Your task to perform on an android device: check storage Image 0: 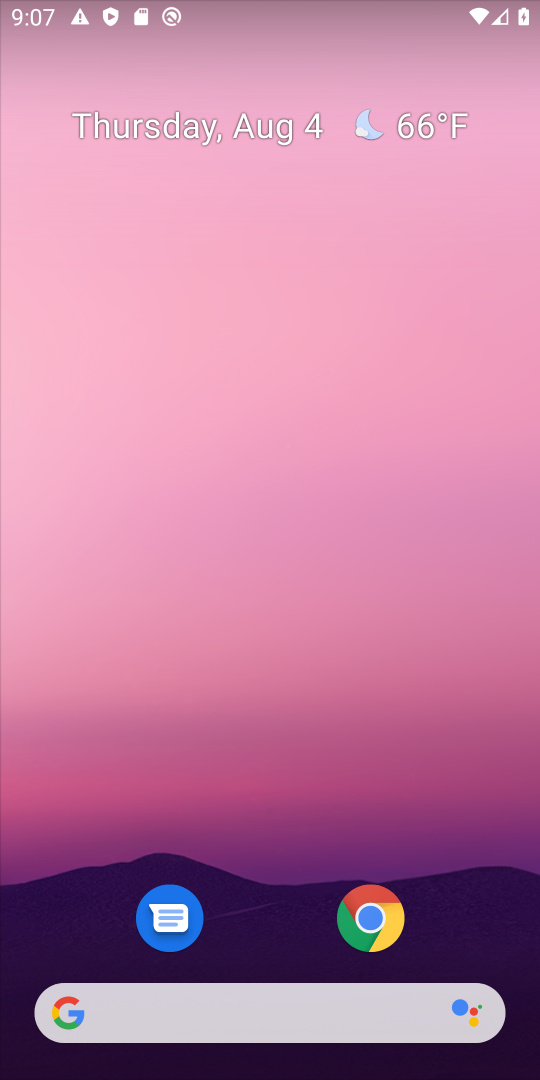
Step 0: drag from (282, 950) to (311, 150)
Your task to perform on an android device: check storage Image 1: 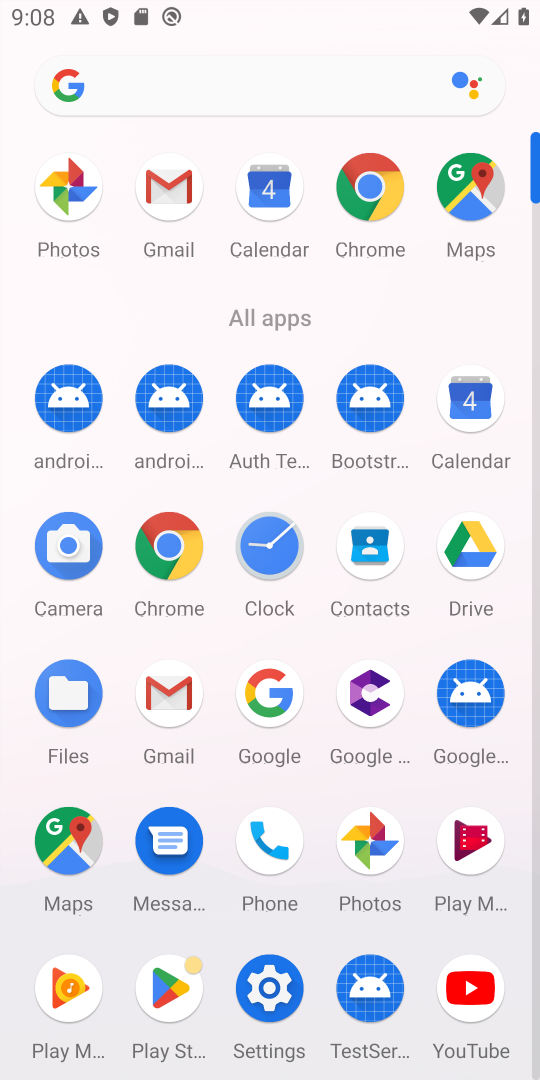
Step 1: click (265, 976)
Your task to perform on an android device: check storage Image 2: 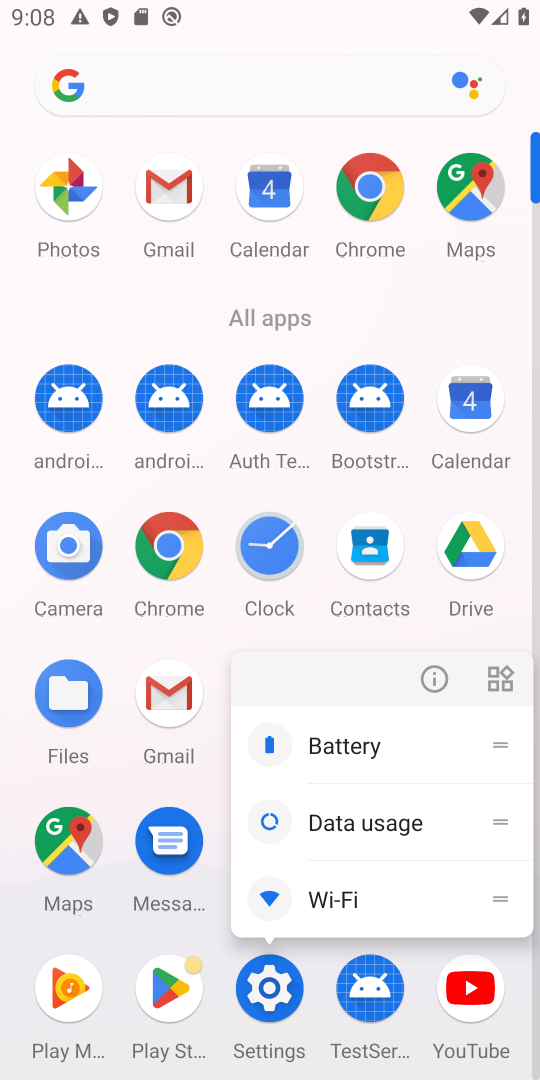
Step 2: click (251, 982)
Your task to perform on an android device: check storage Image 3: 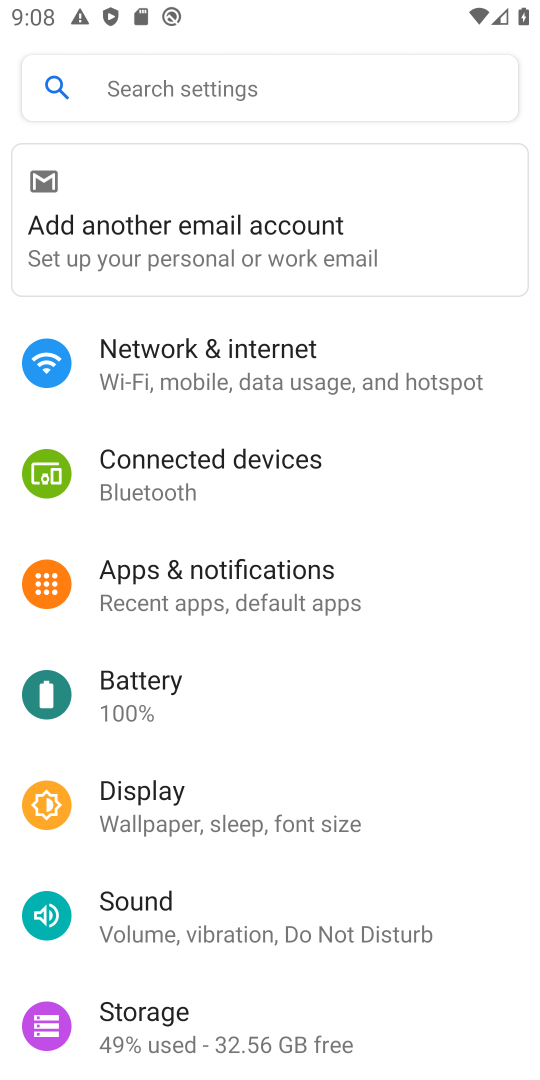
Step 3: click (200, 1016)
Your task to perform on an android device: check storage Image 4: 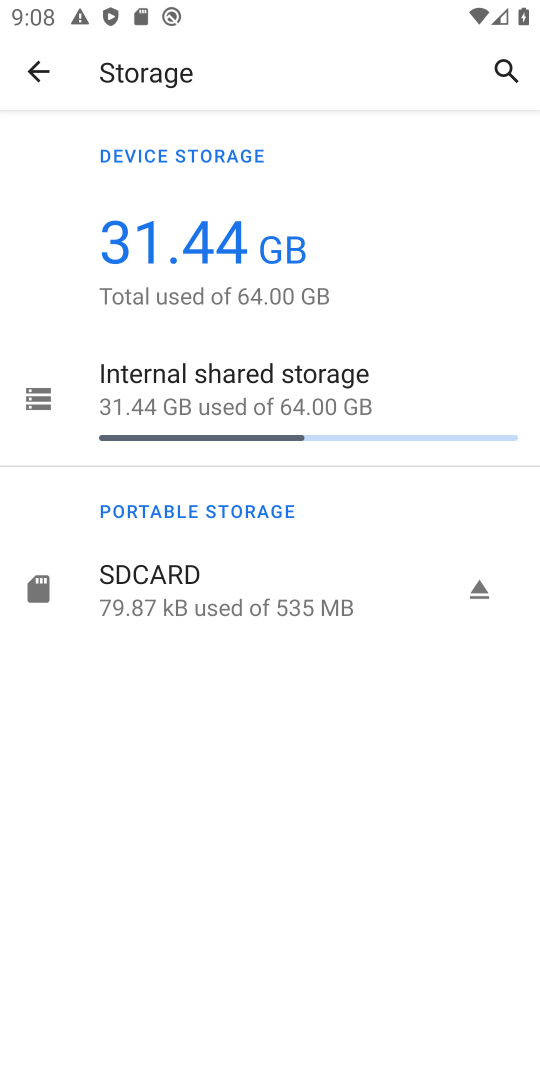
Step 4: task complete